Your task to perform on an android device: stop showing notifications on the lock screen Image 0: 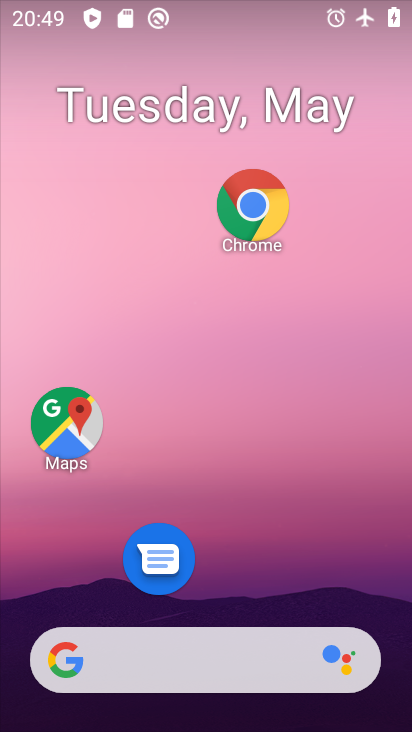
Step 0: drag from (210, 588) to (220, 95)
Your task to perform on an android device: stop showing notifications on the lock screen Image 1: 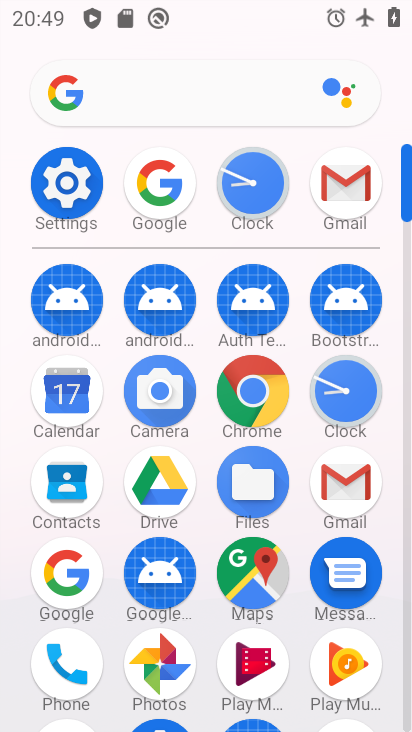
Step 1: click (67, 157)
Your task to perform on an android device: stop showing notifications on the lock screen Image 2: 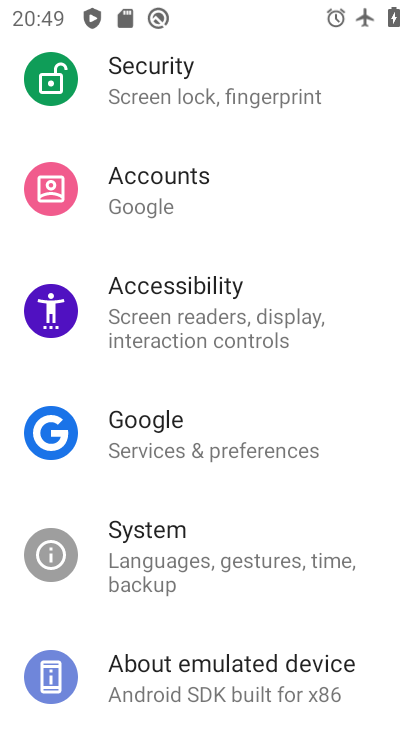
Step 2: drag from (253, 198) to (272, 590)
Your task to perform on an android device: stop showing notifications on the lock screen Image 3: 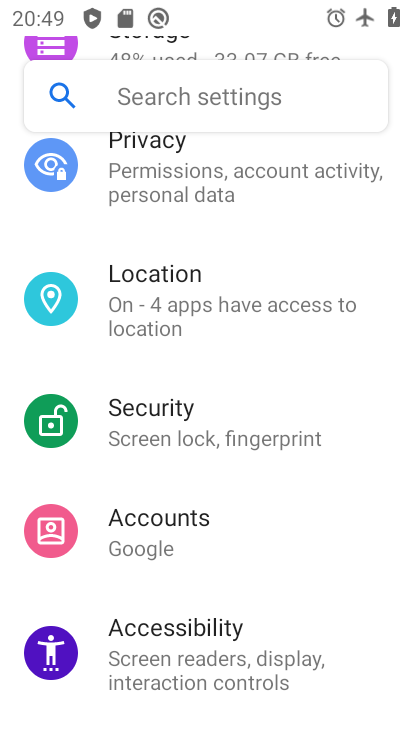
Step 3: drag from (204, 187) to (258, 556)
Your task to perform on an android device: stop showing notifications on the lock screen Image 4: 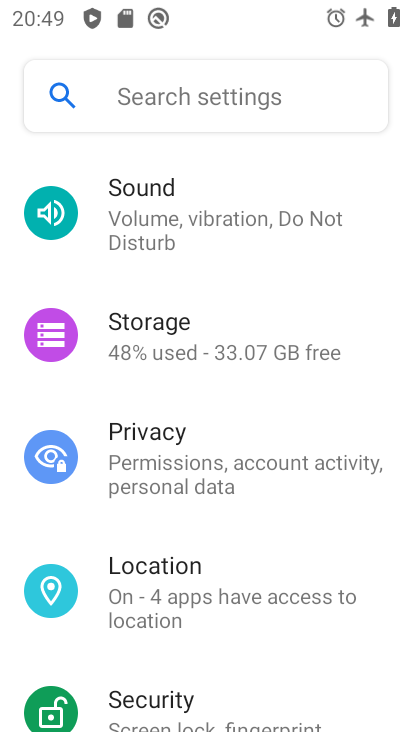
Step 4: drag from (263, 201) to (298, 563)
Your task to perform on an android device: stop showing notifications on the lock screen Image 5: 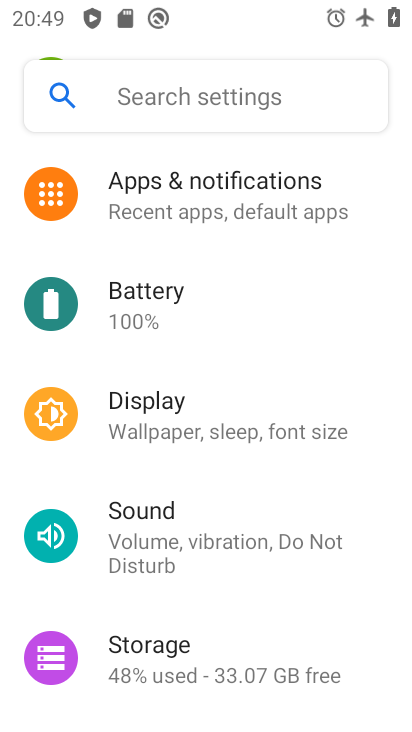
Step 5: drag from (259, 230) to (281, 398)
Your task to perform on an android device: stop showing notifications on the lock screen Image 6: 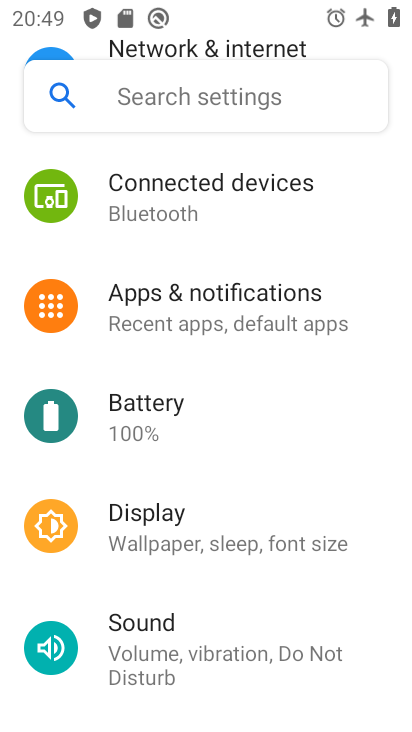
Step 6: click (232, 326)
Your task to perform on an android device: stop showing notifications on the lock screen Image 7: 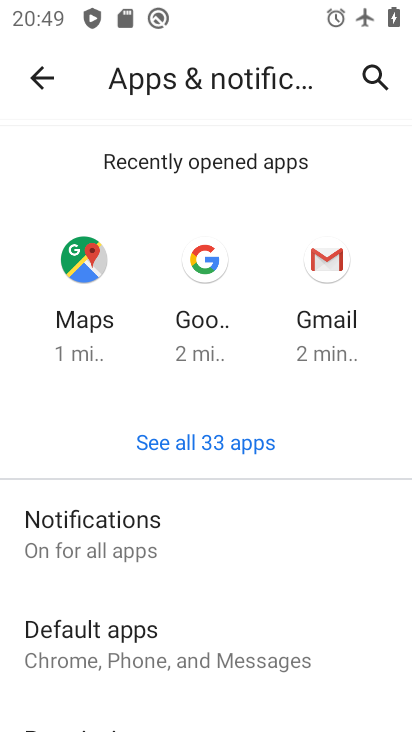
Step 7: click (194, 545)
Your task to perform on an android device: stop showing notifications on the lock screen Image 8: 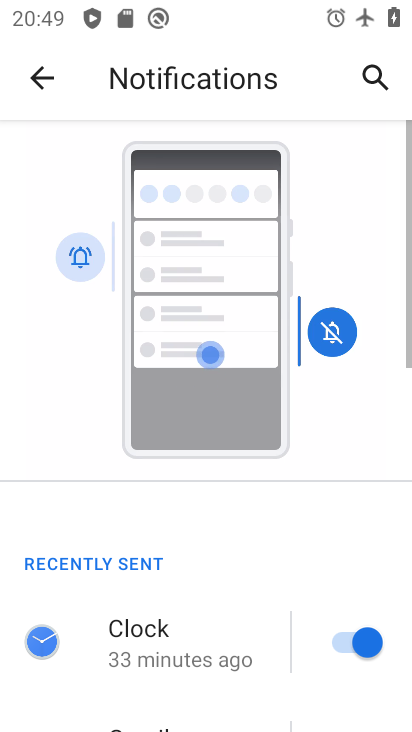
Step 8: drag from (229, 646) to (226, 296)
Your task to perform on an android device: stop showing notifications on the lock screen Image 9: 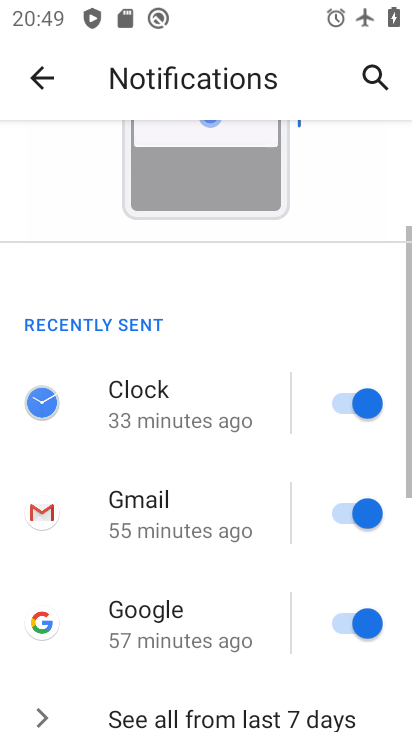
Step 9: drag from (213, 600) to (233, 268)
Your task to perform on an android device: stop showing notifications on the lock screen Image 10: 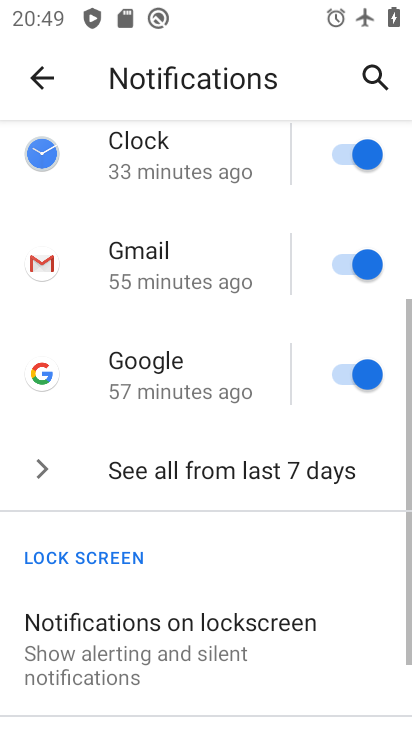
Step 10: drag from (226, 561) to (237, 295)
Your task to perform on an android device: stop showing notifications on the lock screen Image 11: 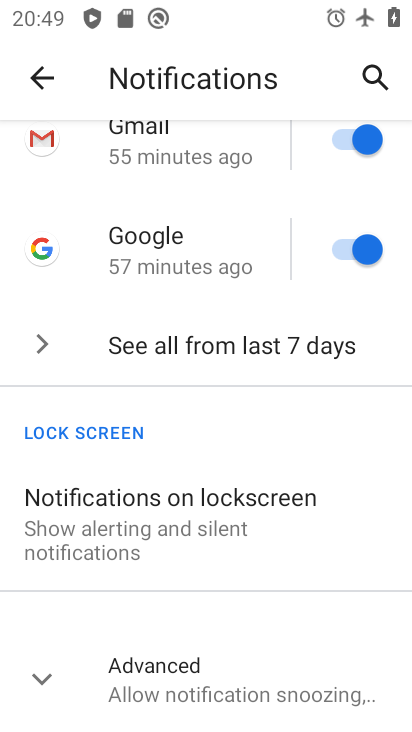
Step 11: click (219, 495)
Your task to perform on an android device: stop showing notifications on the lock screen Image 12: 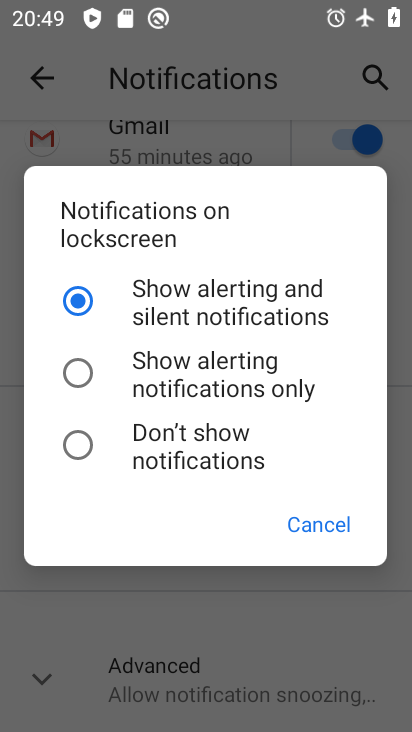
Step 12: click (172, 446)
Your task to perform on an android device: stop showing notifications on the lock screen Image 13: 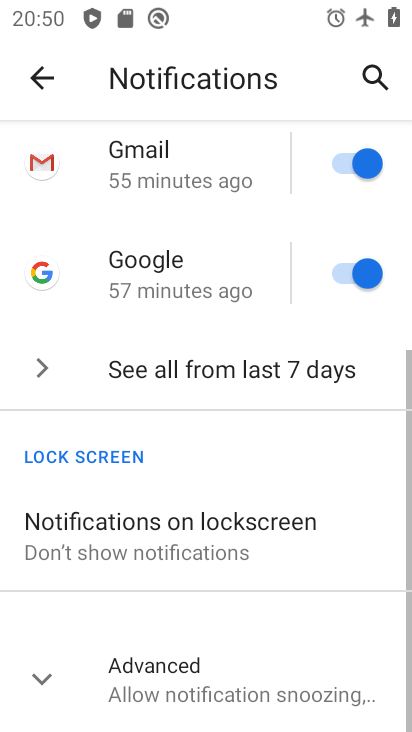
Step 13: task complete